Your task to perform on an android device: Is it going to rain today? Image 0: 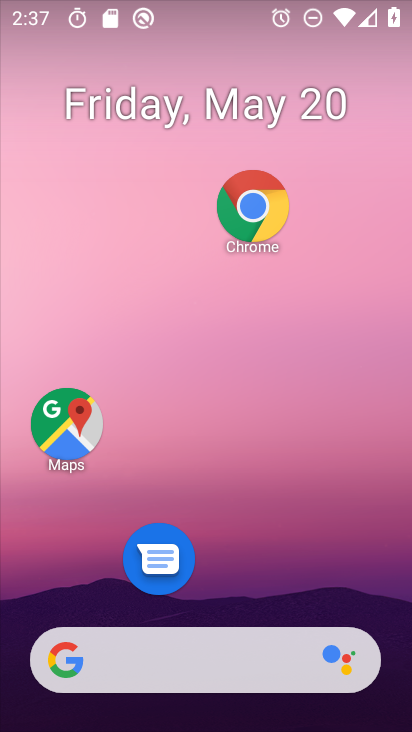
Step 0: drag from (217, 608) to (132, 123)
Your task to perform on an android device: Is it going to rain today? Image 1: 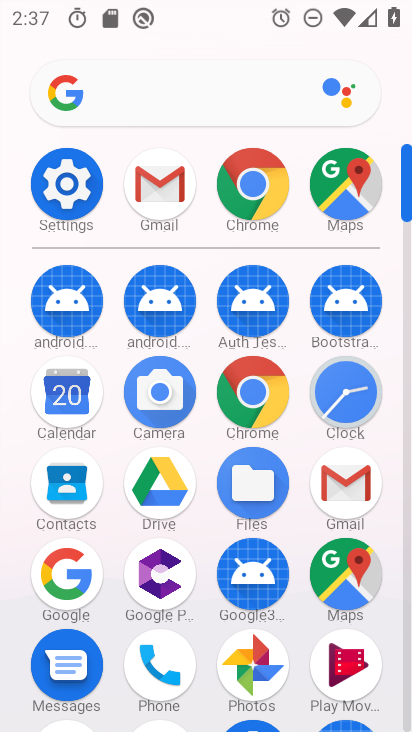
Step 1: click (15, 595)
Your task to perform on an android device: Is it going to rain today? Image 2: 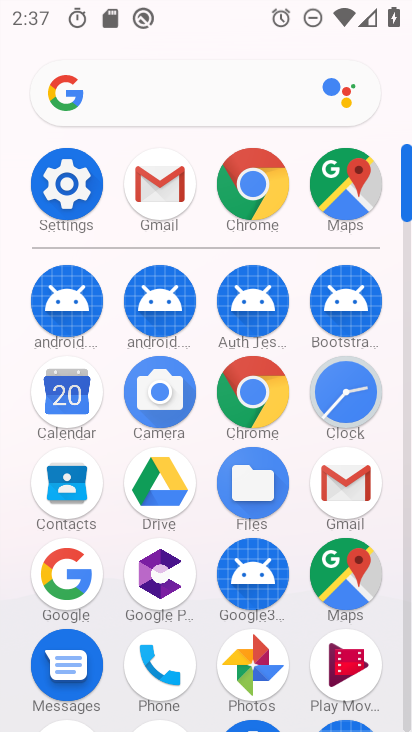
Step 2: click (72, 578)
Your task to perform on an android device: Is it going to rain today? Image 3: 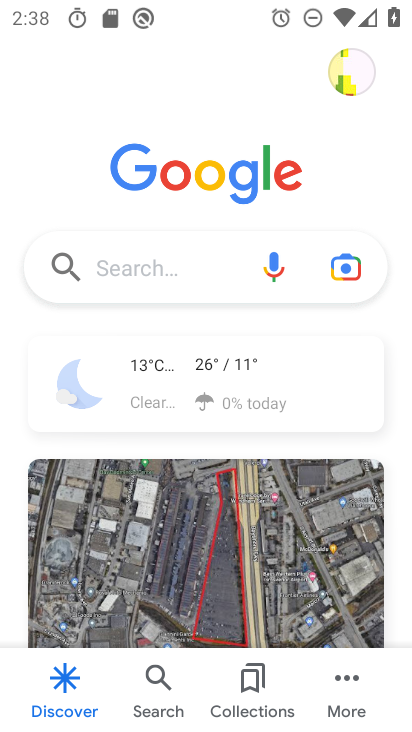
Step 3: click (92, 371)
Your task to perform on an android device: Is it going to rain today? Image 4: 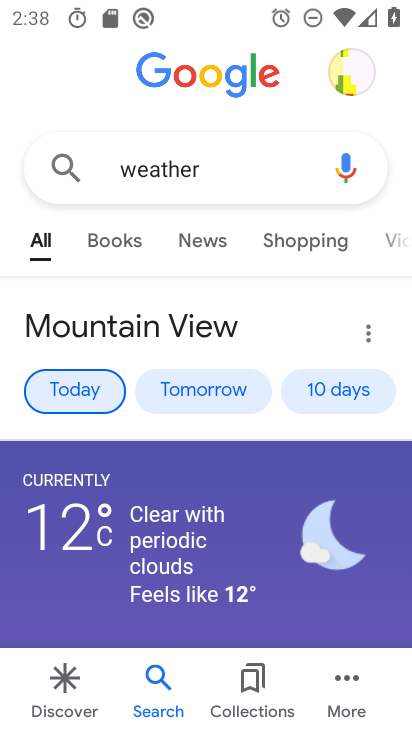
Step 4: click (92, 396)
Your task to perform on an android device: Is it going to rain today? Image 5: 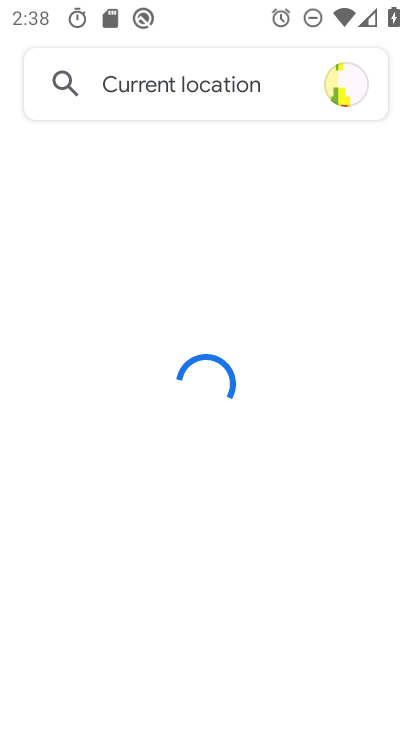
Step 5: task complete